Your task to perform on an android device: turn on the 24-hour format for clock Image 0: 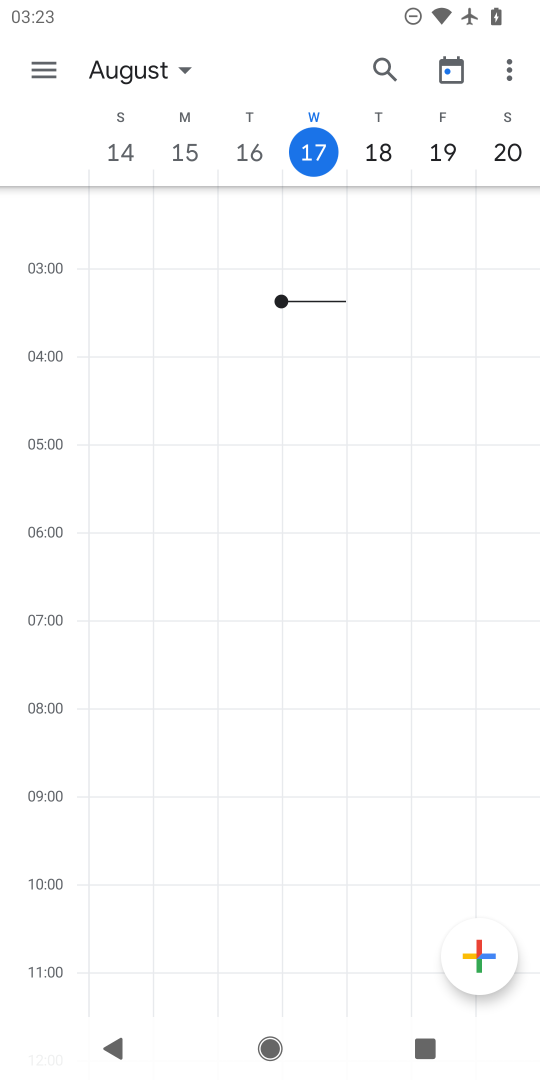
Step 0: press home button
Your task to perform on an android device: turn on the 24-hour format for clock Image 1: 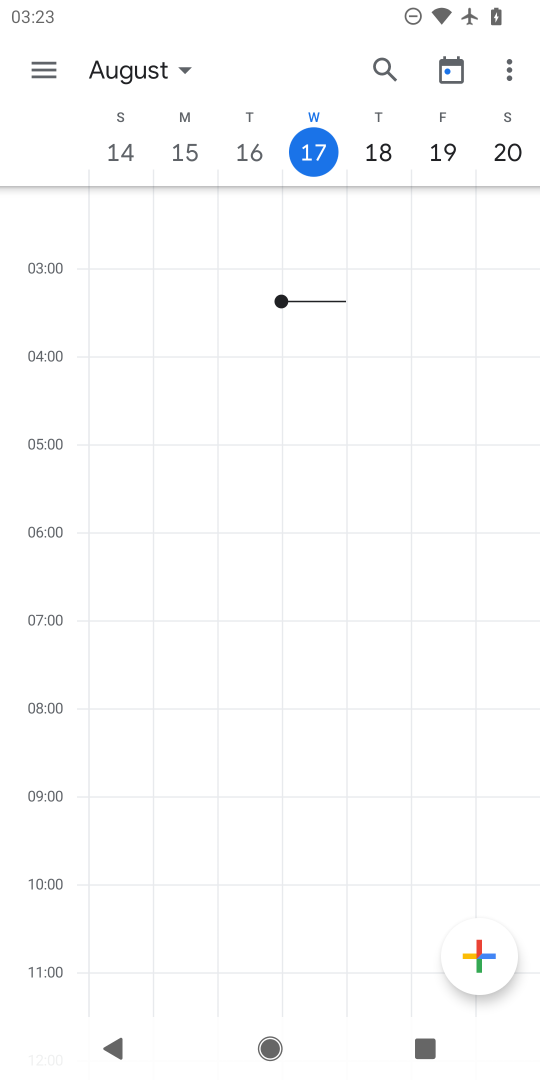
Step 1: press home button
Your task to perform on an android device: turn on the 24-hour format for clock Image 2: 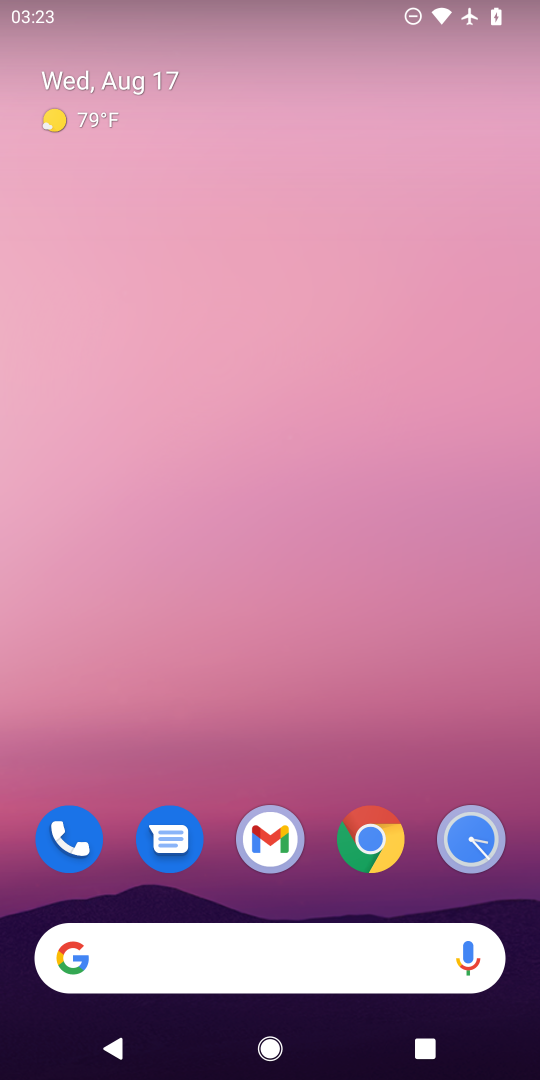
Step 2: drag from (294, 901) to (211, 86)
Your task to perform on an android device: turn on the 24-hour format for clock Image 3: 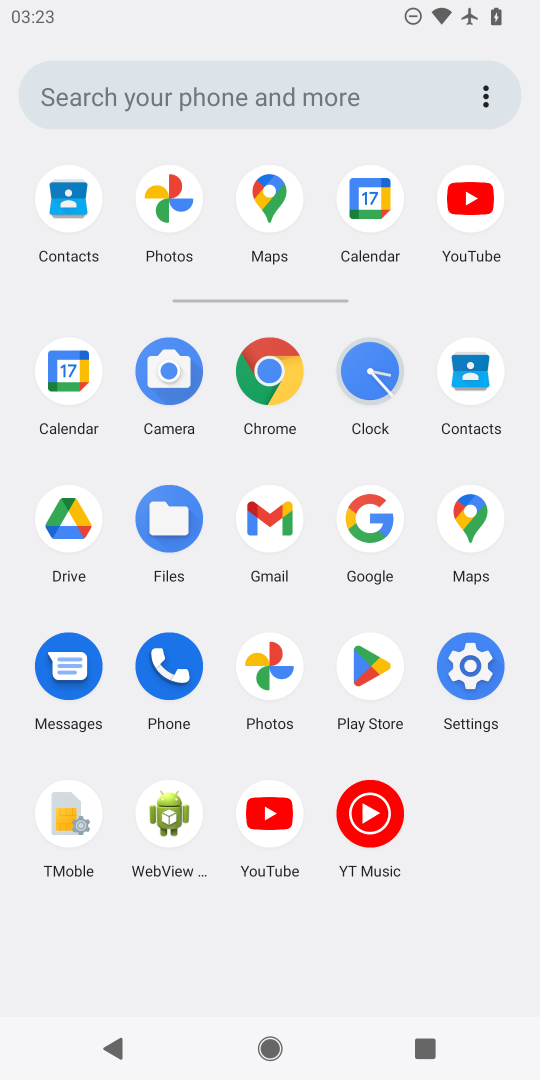
Step 3: click (355, 359)
Your task to perform on an android device: turn on the 24-hour format for clock Image 4: 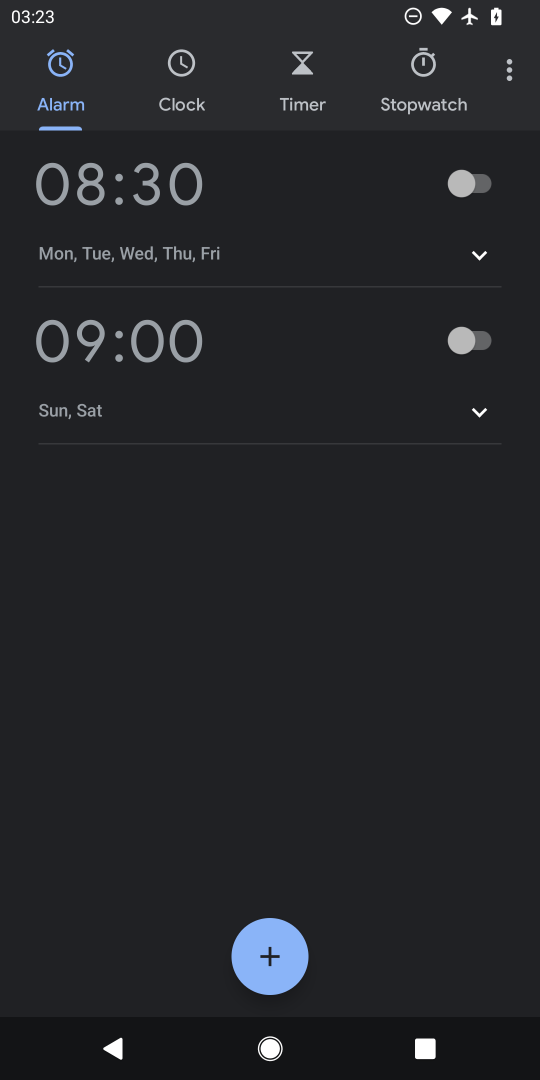
Step 4: click (506, 86)
Your task to perform on an android device: turn on the 24-hour format for clock Image 5: 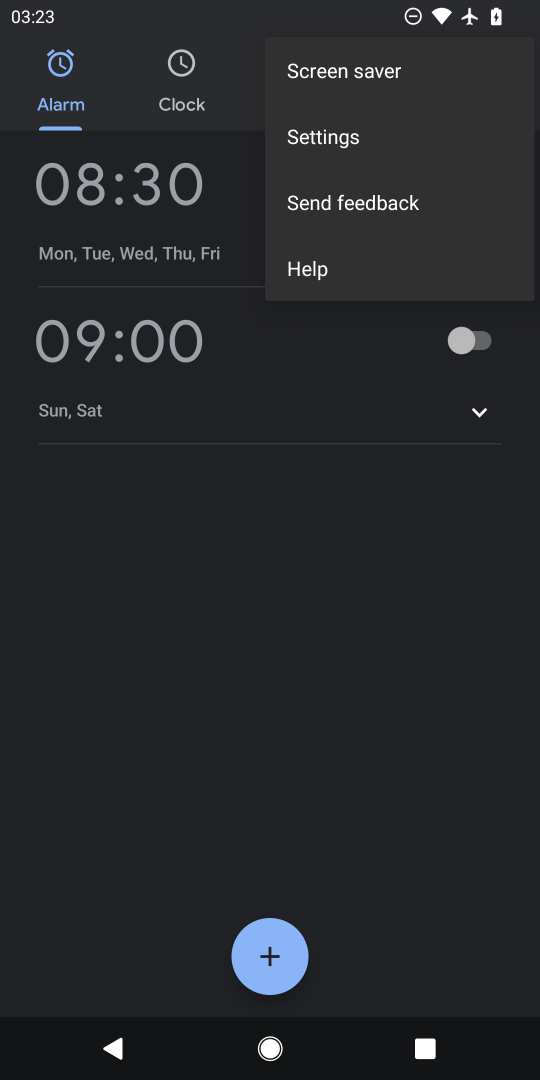
Step 5: click (348, 144)
Your task to perform on an android device: turn on the 24-hour format for clock Image 6: 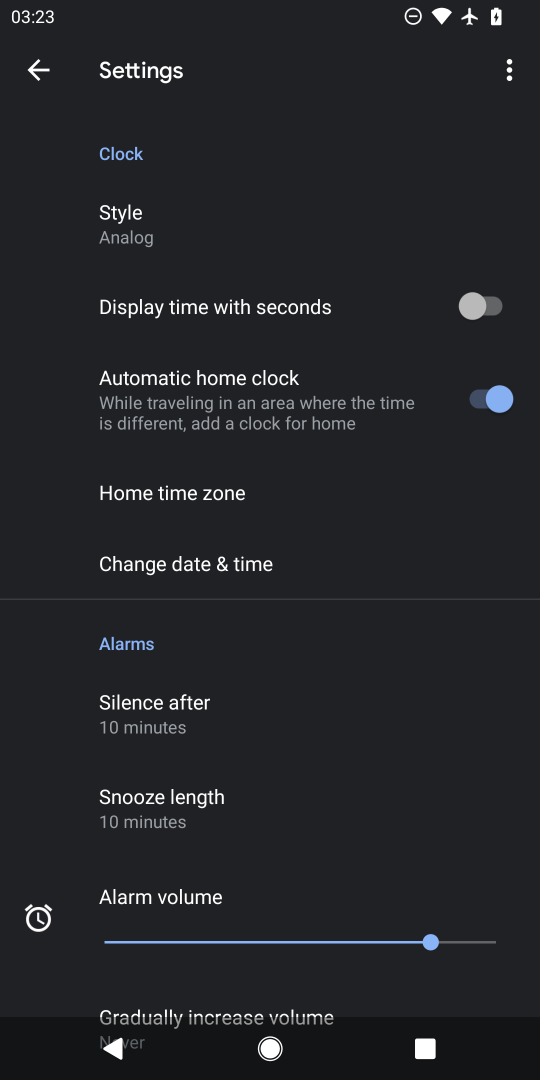
Step 6: click (231, 554)
Your task to perform on an android device: turn on the 24-hour format for clock Image 7: 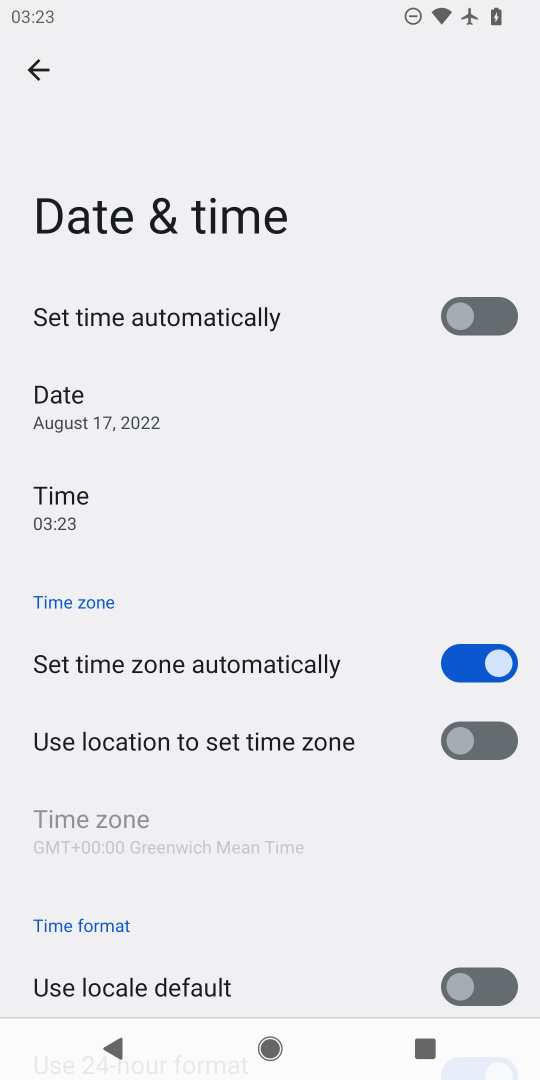
Step 7: task complete